Your task to perform on an android device: find which apps use the phone's location Image 0: 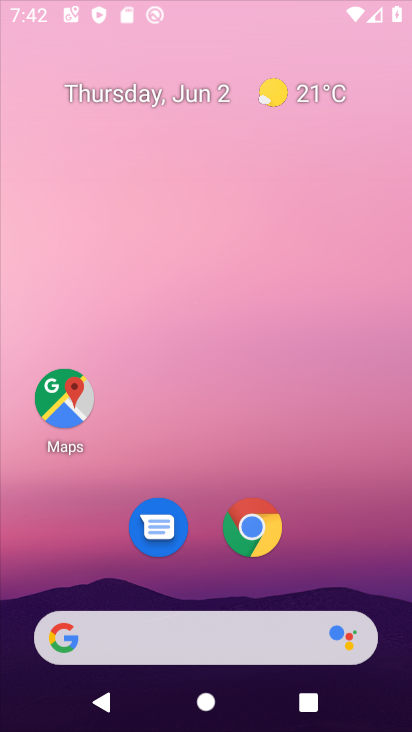
Step 0: click (265, 520)
Your task to perform on an android device: find which apps use the phone's location Image 1: 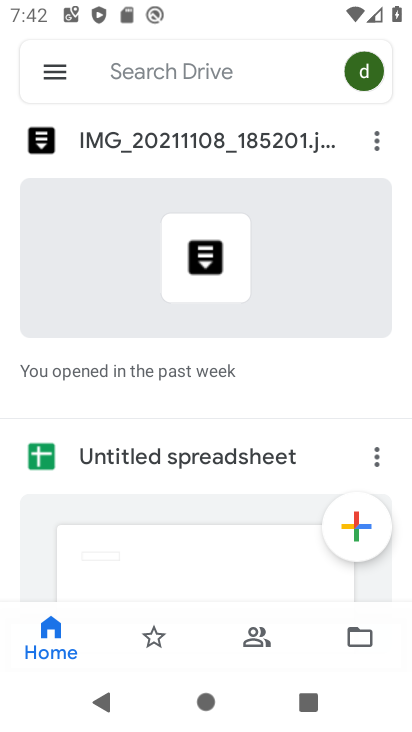
Step 1: press home button
Your task to perform on an android device: find which apps use the phone's location Image 2: 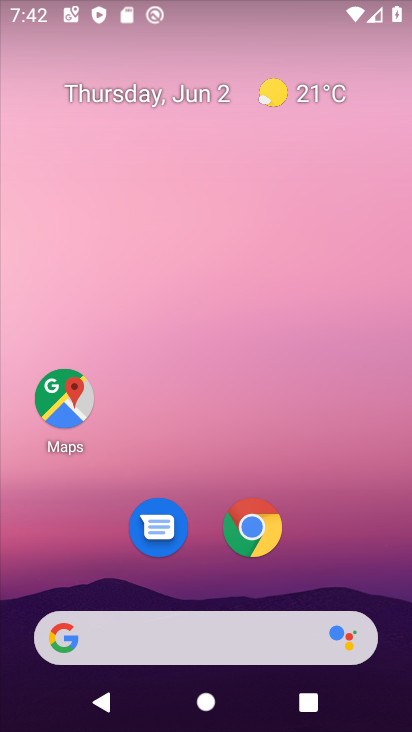
Step 2: drag from (339, 594) to (305, 59)
Your task to perform on an android device: find which apps use the phone's location Image 3: 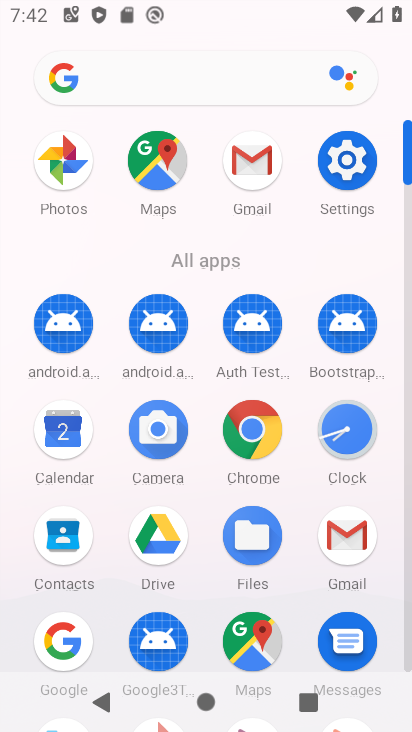
Step 3: click (334, 157)
Your task to perform on an android device: find which apps use the phone's location Image 4: 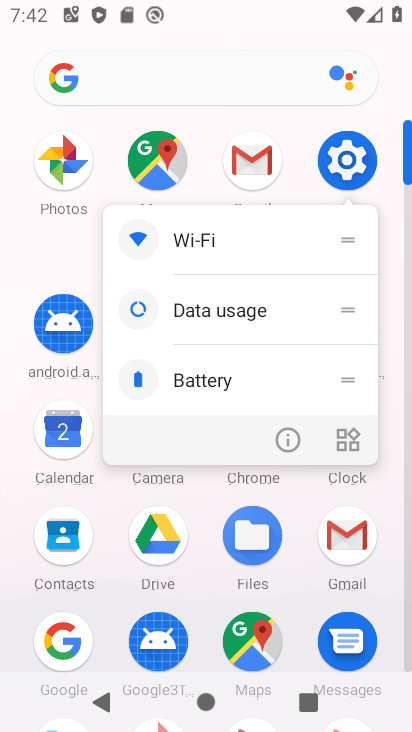
Step 4: click (333, 157)
Your task to perform on an android device: find which apps use the phone's location Image 5: 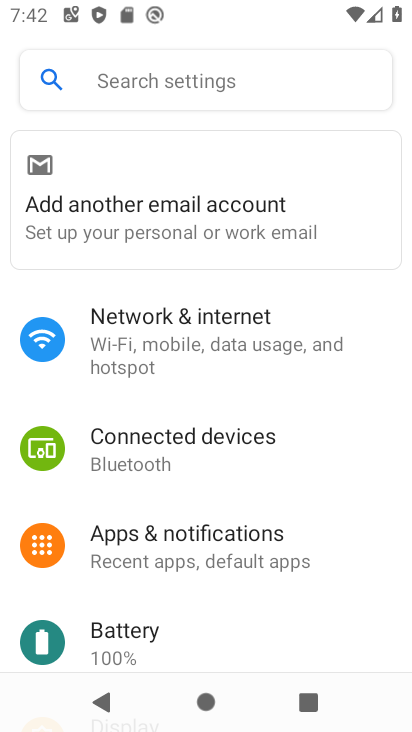
Step 5: drag from (233, 588) to (208, 251)
Your task to perform on an android device: find which apps use the phone's location Image 6: 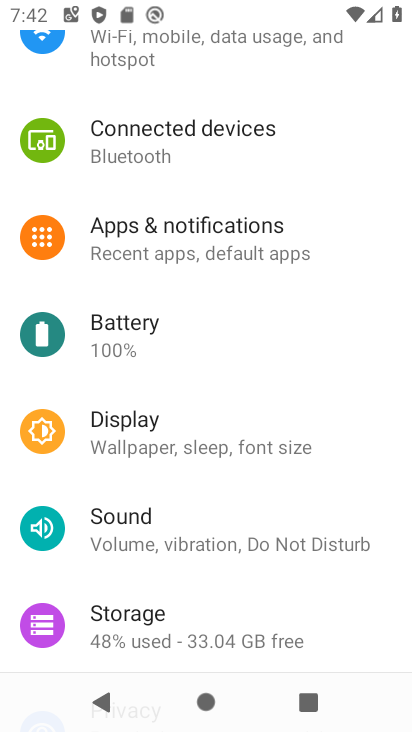
Step 6: drag from (149, 564) to (158, 299)
Your task to perform on an android device: find which apps use the phone's location Image 7: 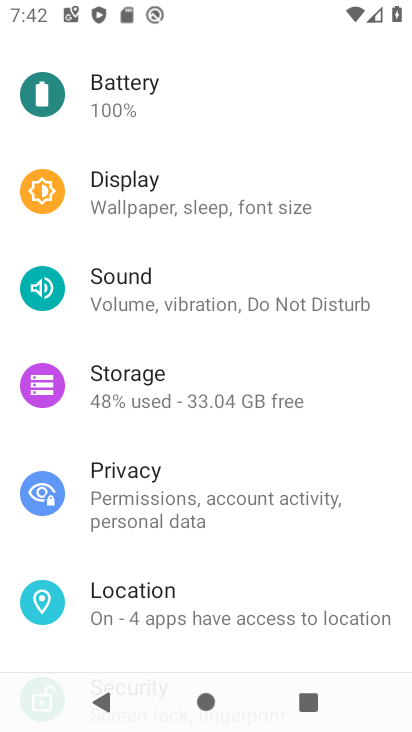
Step 7: click (175, 590)
Your task to perform on an android device: find which apps use the phone's location Image 8: 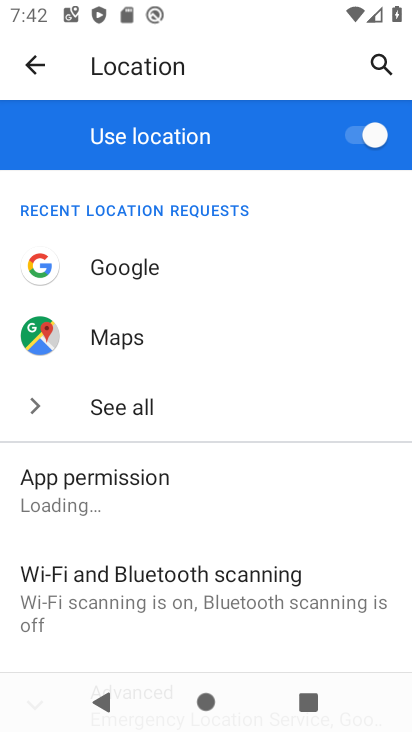
Step 8: click (137, 494)
Your task to perform on an android device: find which apps use the phone's location Image 9: 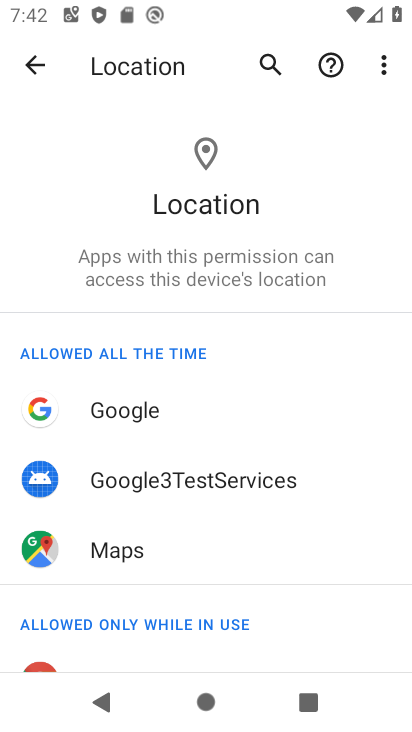
Step 9: task complete